Your task to perform on an android device: change timer sound Image 0: 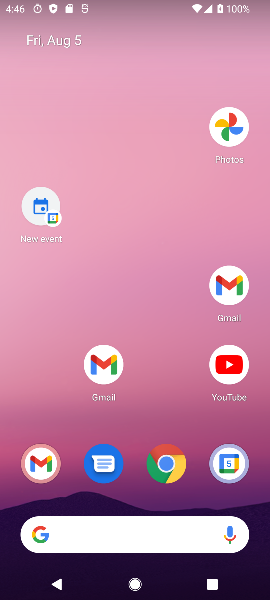
Step 0: drag from (127, 213) to (127, 153)
Your task to perform on an android device: change timer sound Image 1: 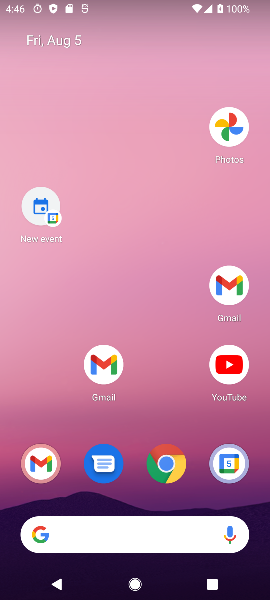
Step 1: drag from (186, 523) to (173, 169)
Your task to perform on an android device: change timer sound Image 2: 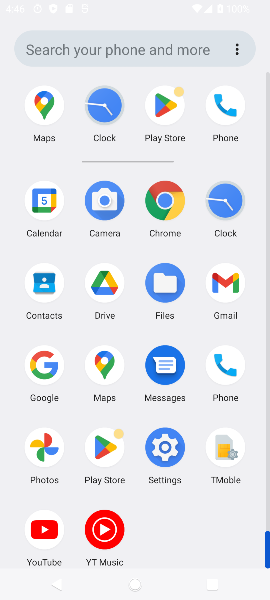
Step 2: drag from (233, 462) to (196, 214)
Your task to perform on an android device: change timer sound Image 3: 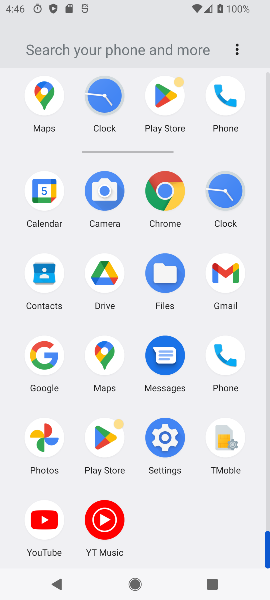
Step 3: click (226, 196)
Your task to perform on an android device: change timer sound Image 4: 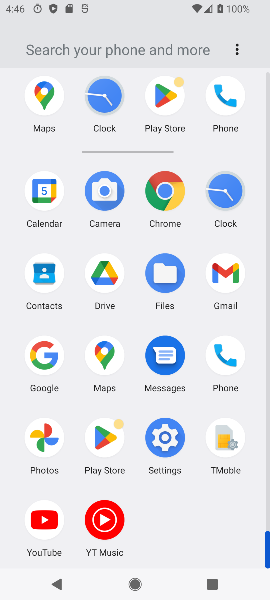
Step 4: click (226, 196)
Your task to perform on an android device: change timer sound Image 5: 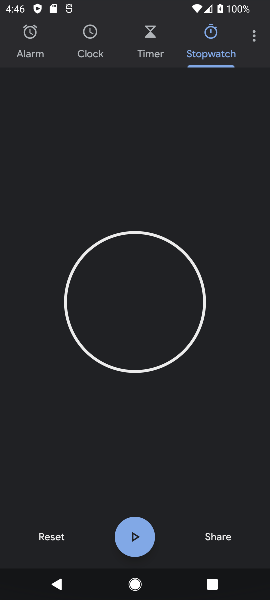
Step 5: click (226, 196)
Your task to perform on an android device: change timer sound Image 6: 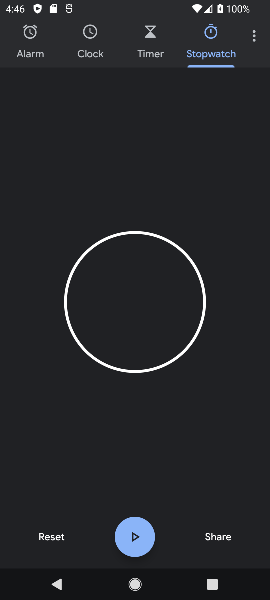
Step 6: click (226, 196)
Your task to perform on an android device: change timer sound Image 7: 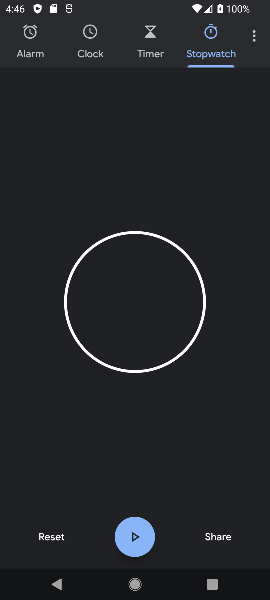
Step 7: click (151, 51)
Your task to perform on an android device: change timer sound Image 8: 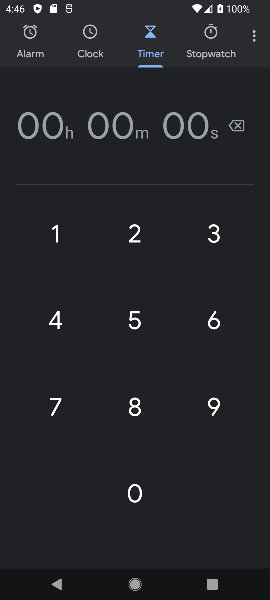
Step 8: click (138, 315)
Your task to perform on an android device: change timer sound Image 9: 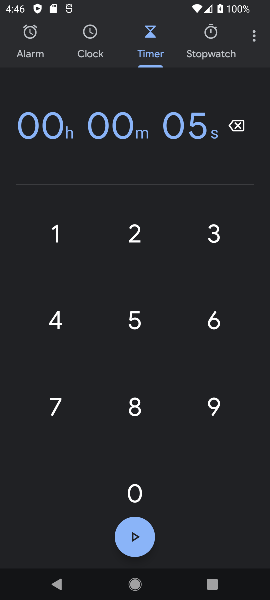
Step 9: click (258, 38)
Your task to perform on an android device: change timer sound Image 10: 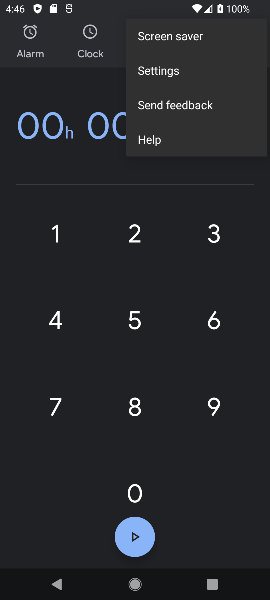
Step 10: click (167, 72)
Your task to perform on an android device: change timer sound Image 11: 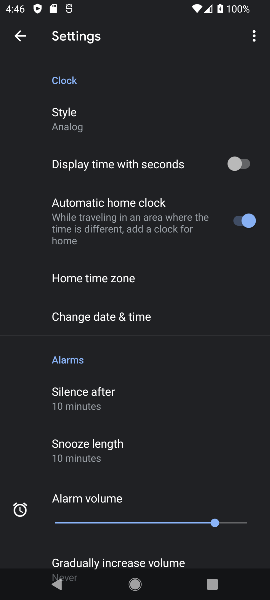
Step 11: drag from (118, 485) to (86, 219)
Your task to perform on an android device: change timer sound Image 12: 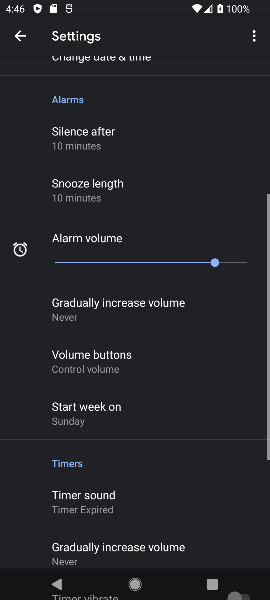
Step 12: drag from (110, 415) to (110, 234)
Your task to perform on an android device: change timer sound Image 13: 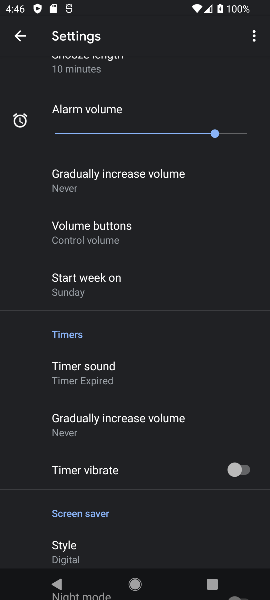
Step 13: click (74, 372)
Your task to perform on an android device: change timer sound Image 14: 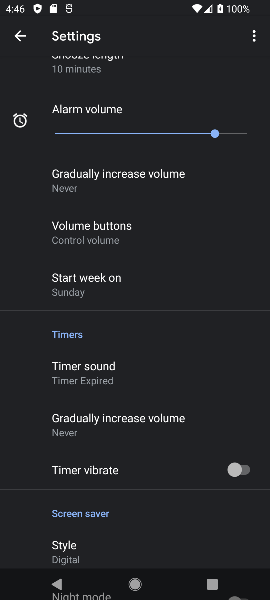
Step 14: click (75, 371)
Your task to perform on an android device: change timer sound Image 15: 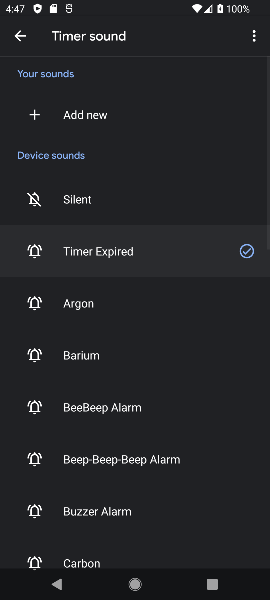
Step 15: click (36, 394)
Your task to perform on an android device: change timer sound Image 16: 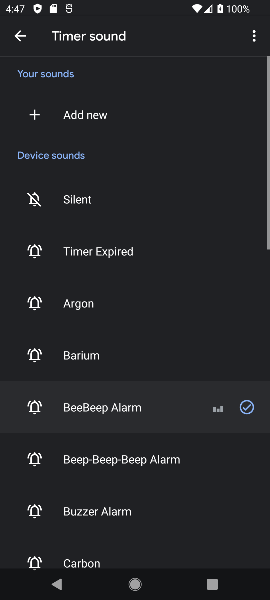
Step 16: task complete